Your task to perform on an android device: Go to network settings Image 0: 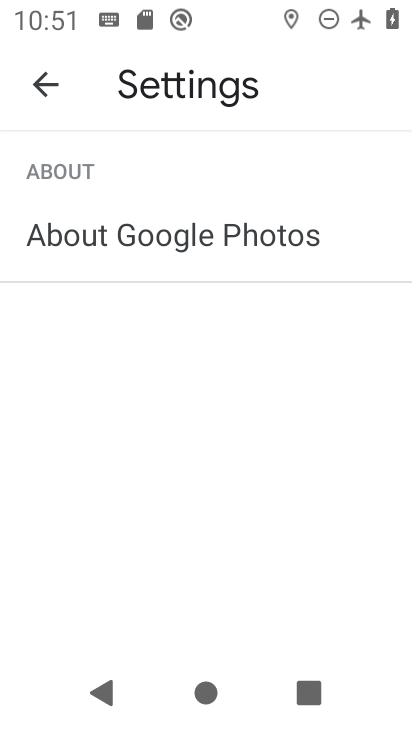
Step 0: press home button
Your task to perform on an android device: Go to network settings Image 1: 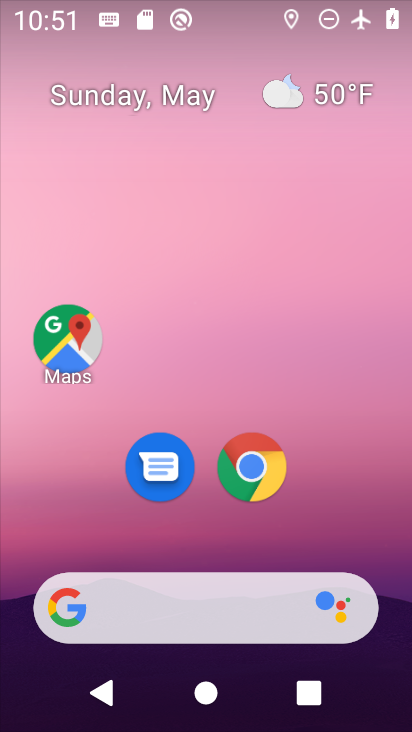
Step 1: drag from (200, 540) to (200, 113)
Your task to perform on an android device: Go to network settings Image 2: 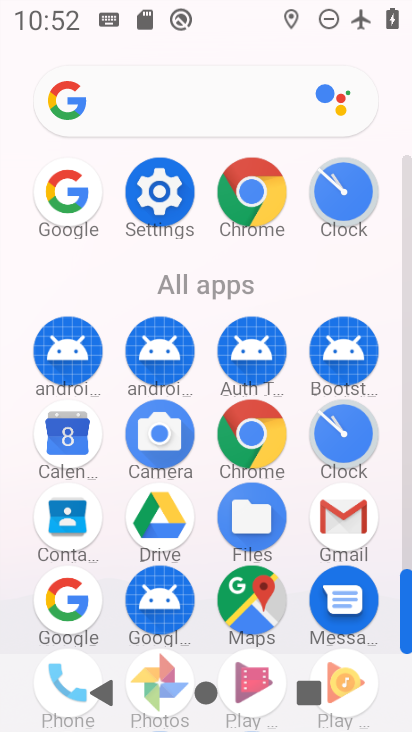
Step 2: click (153, 194)
Your task to perform on an android device: Go to network settings Image 3: 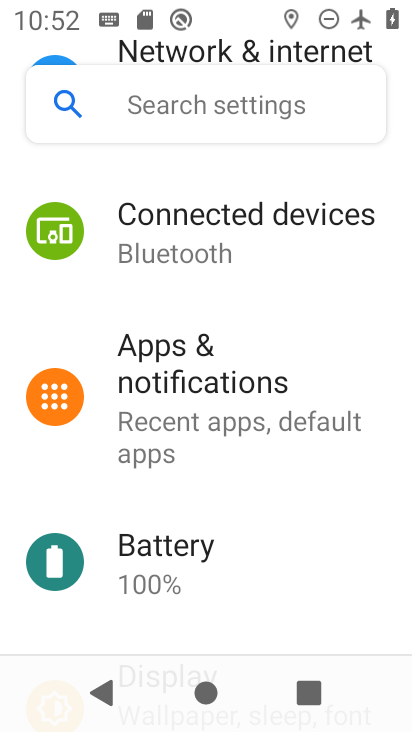
Step 3: drag from (252, 168) to (261, 413)
Your task to perform on an android device: Go to network settings Image 4: 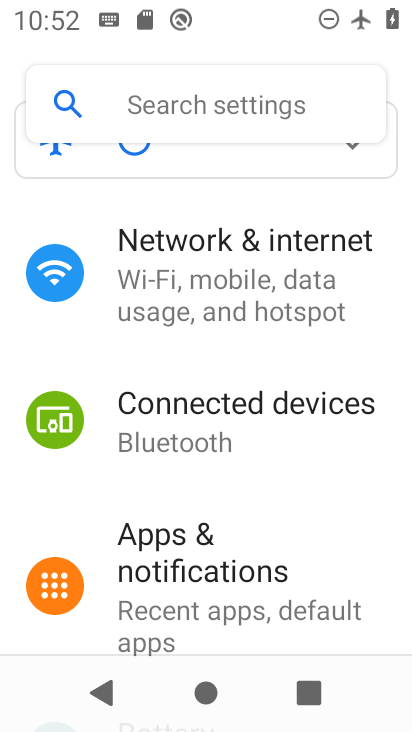
Step 4: click (193, 273)
Your task to perform on an android device: Go to network settings Image 5: 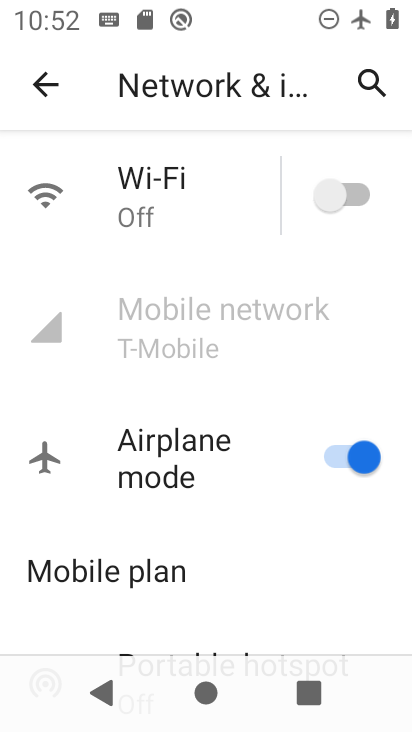
Step 5: drag from (227, 588) to (201, 309)
Your task to perform on an android device: Go to network settings Image 6: 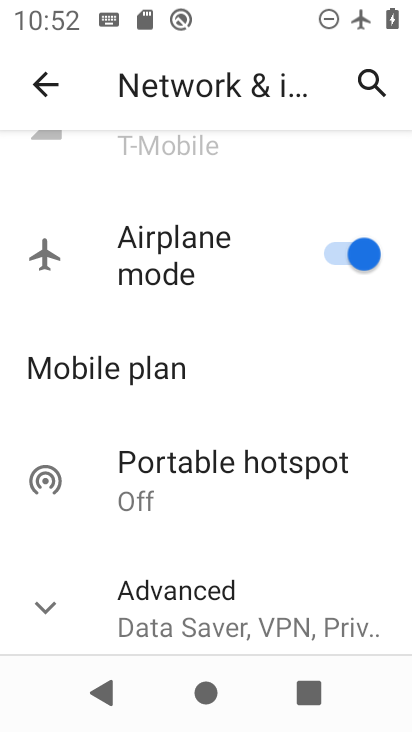
Step 6: drag from (205, 241) to (241, 470)
Your task to perform on an android device: Go to network settings Image 7: 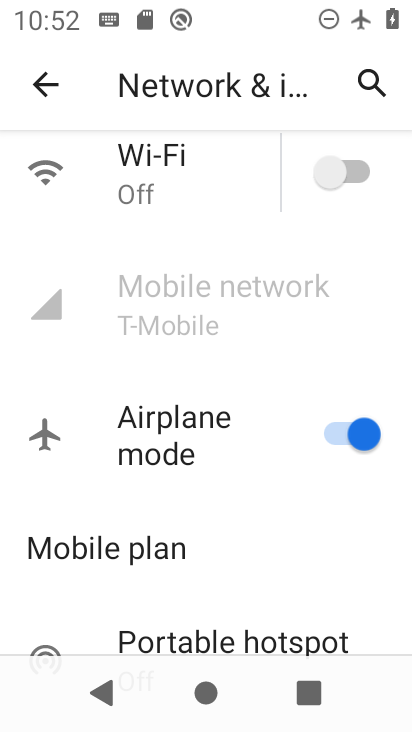
Step 7: click (223, 297)
Your task to perform on an android device: Go to network settings Image 8: 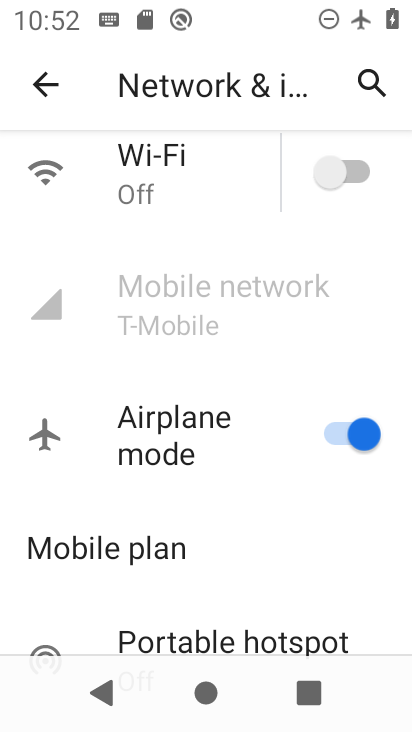
Step 8: task complete